Your task to perform on an android device: What's the weather today? Image 0: 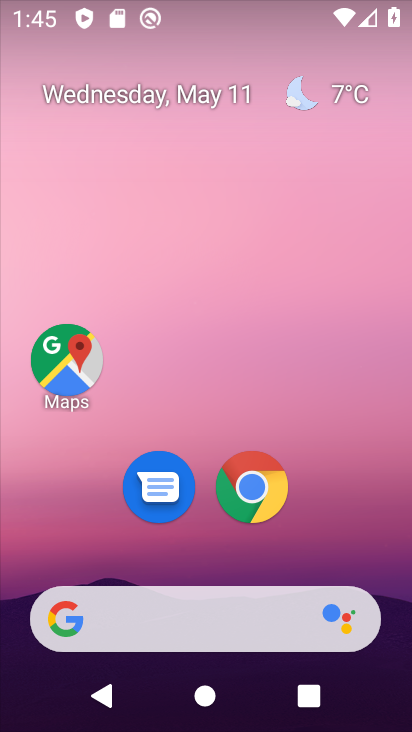
Step 0: click (297, 99)
Your task to perform on an android device: What's the weather today? Image 1: 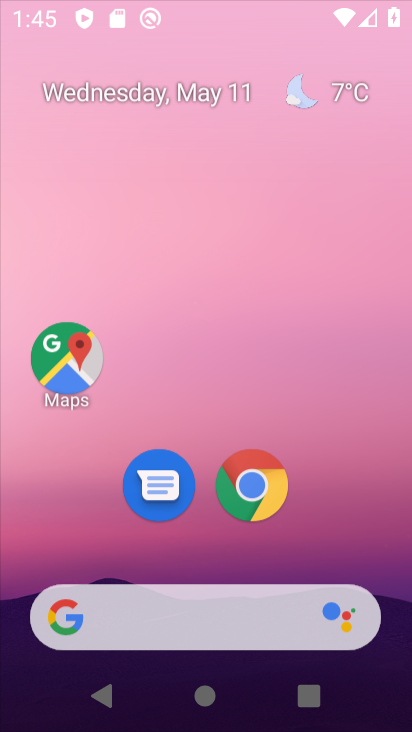
Step 1: click (329, 96)
Your task to perform on an android device: What's the weather today? Image 2: 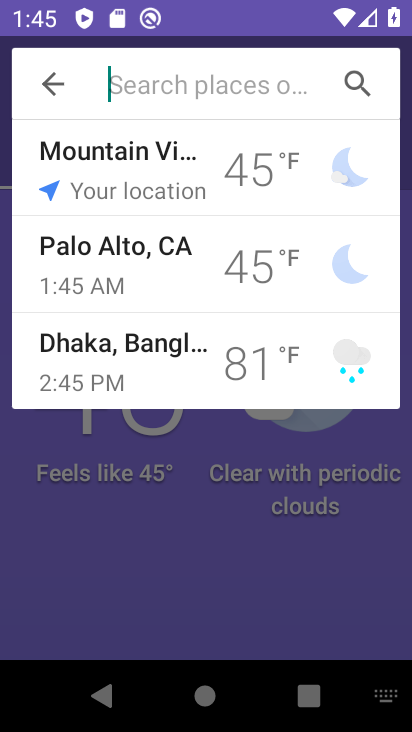
Step 2: click (56, 92)
Your task to perform on an android device: What's the weather today? Image 3: 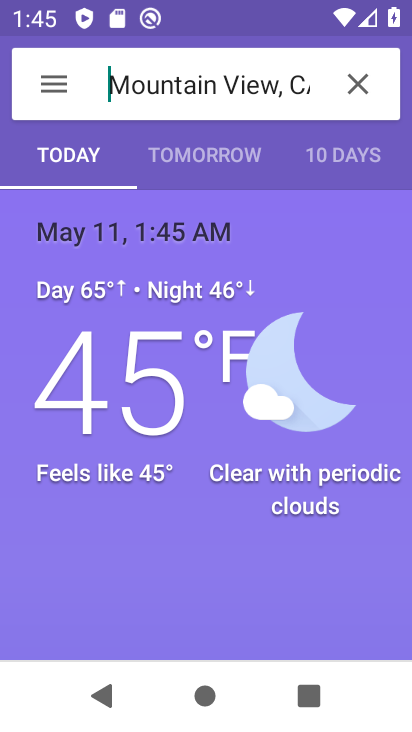
Step 3: task complete